Your task to perform on an android device: turn on wifi Image 0: 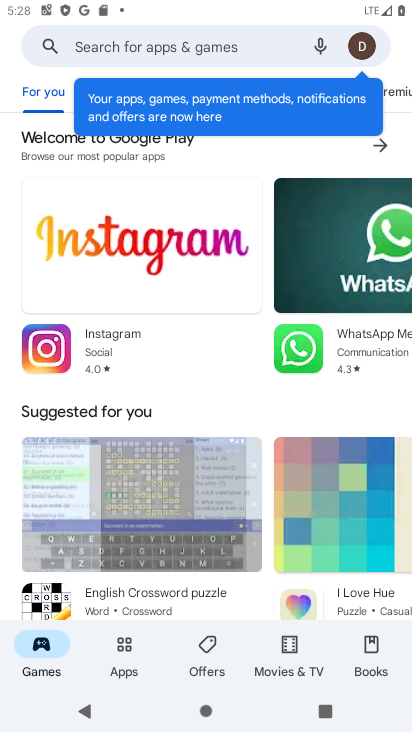
Step 0: press home button
Your task to perform on an android device: turn on wifi Image 1: 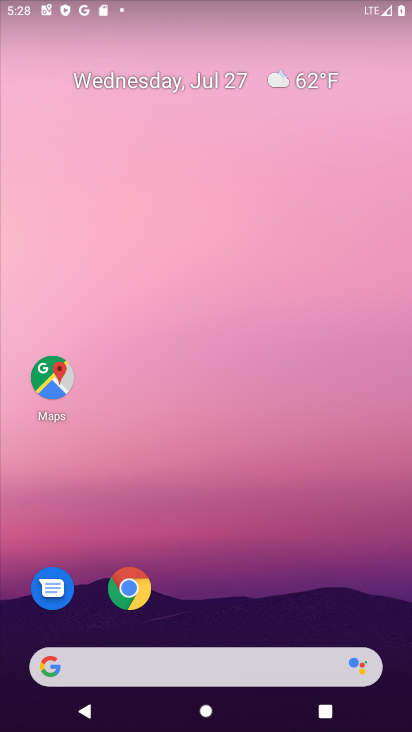
Step 1: drag from (213, 571) to (197, 89)
Your task to perform on an android device: turn on wifi Image 2: 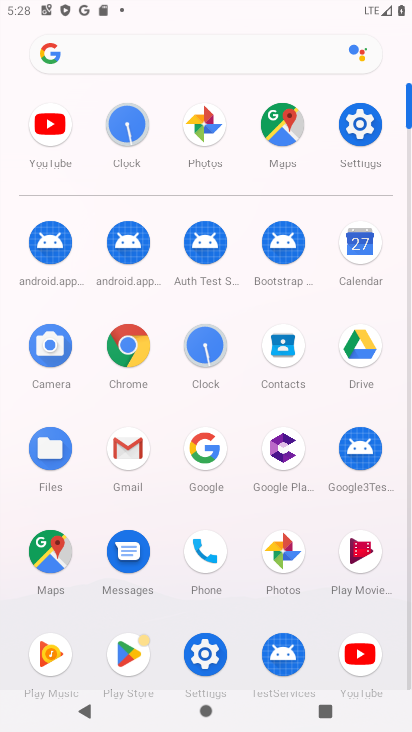
Step 2: click (358, 118)
Your task to perform on an android device: turn on wifi Image 3: 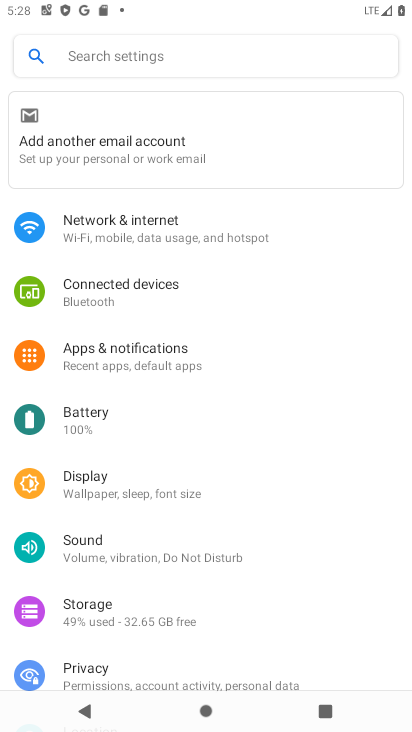
Step 3: click (169, 231)
Your task to perform on an android device: turn on wifi Image 4: 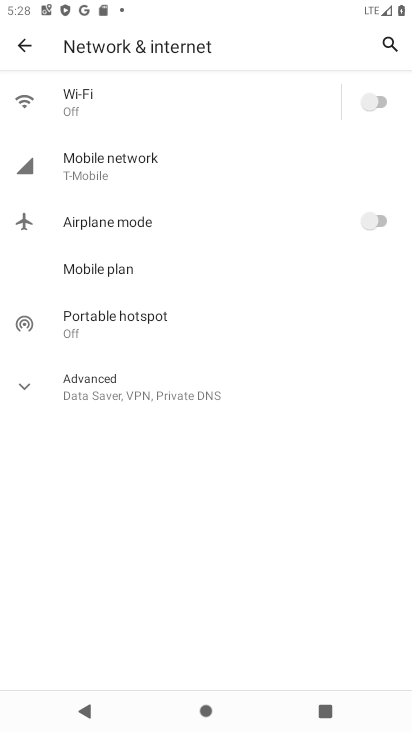
Step 4: click (379, 104)
Your task to perform on an android device: turn on wifi Image 5: 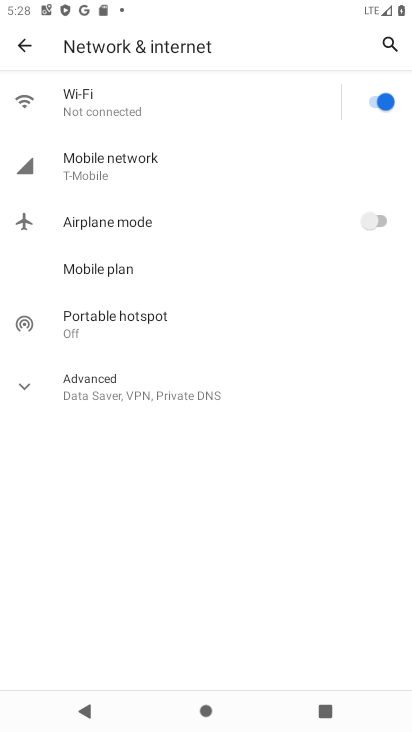
Step 5: task complete